Your task to perform on an android device: turn on javascript in the chrome app Image 0: 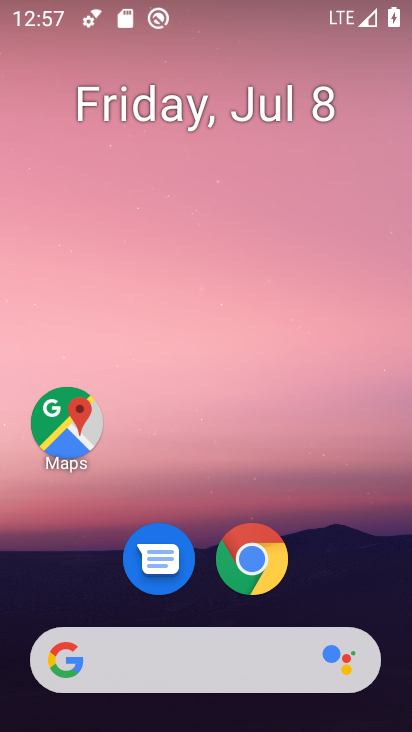
Step 0: drag from (204, 601) to (207, 122)
Your task to perform on an android device: turn on javascript in the chrome app Image 1: 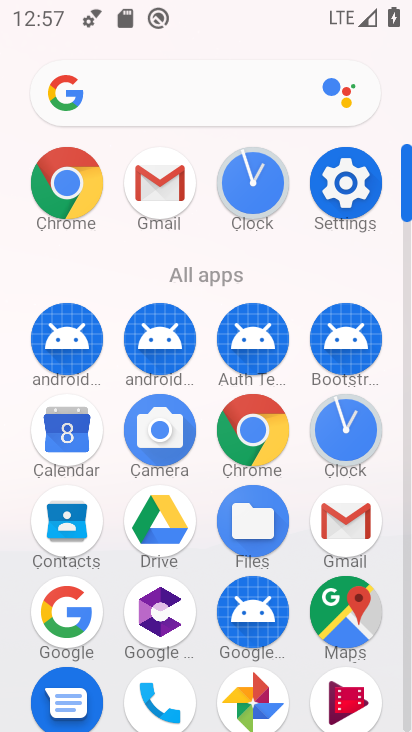
Step 1: click (70, 203)
Your task to perform on an android device: turn on javascript in the chrome app Image 2: 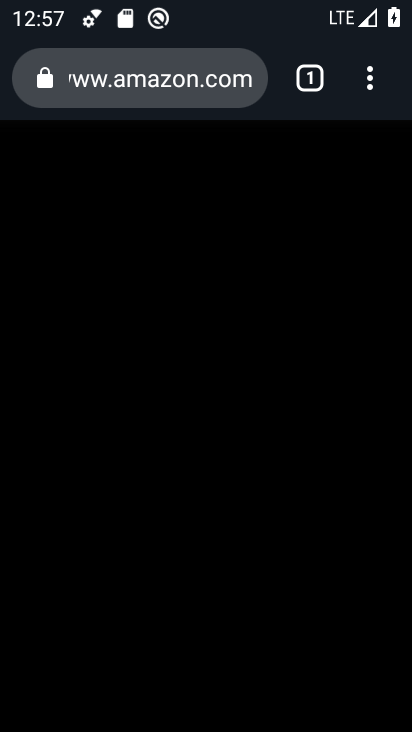
Step 2: drag from (371, 93) to (102, 613)
Your task to perform on an android device: turn on javascript in the chrome app Image 3: 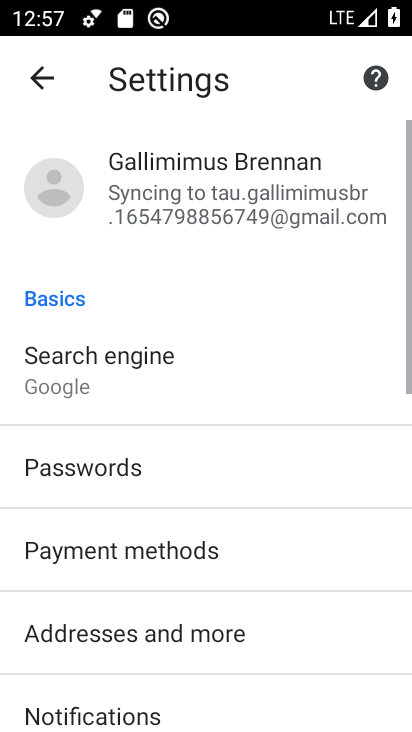
Step 3: drag from (110, 616) to (70, 31)
Your task to perform on an android device: turn on javascript in the chrome app Image 4: 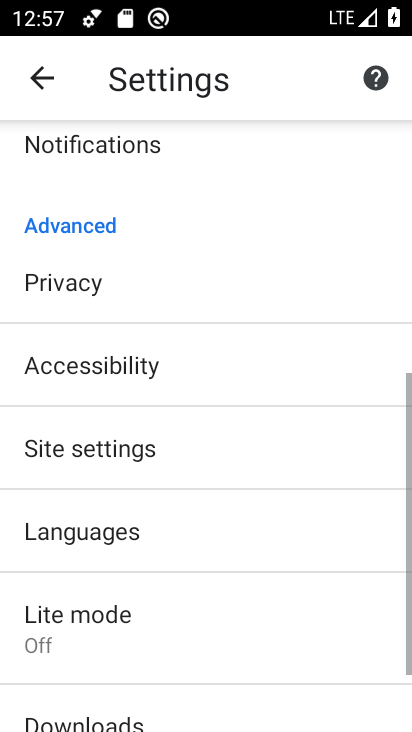
Step 4: click (86, 441)
Your task to perform on an android device: turn on javascript in the chrome app Image 5: 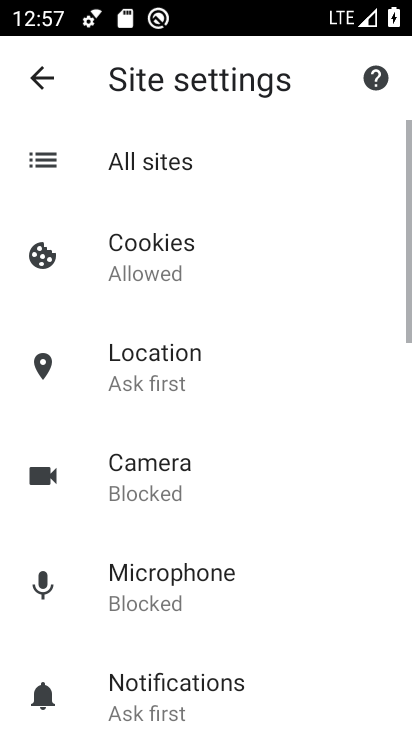
Step 5: drag from (145, 587) to (149, 89)
Your task to perform on an android device: turn on javascript in the chrome app Image 6: 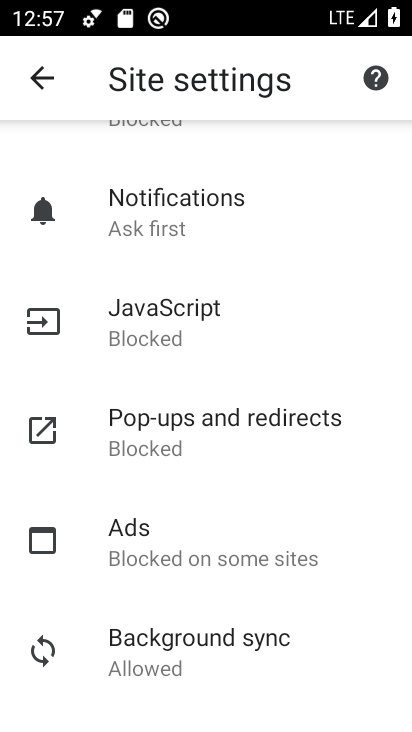
Step 6: click (164, 329)
Your task to perform on an android device: turn on javascript in the chrome app Image 7: 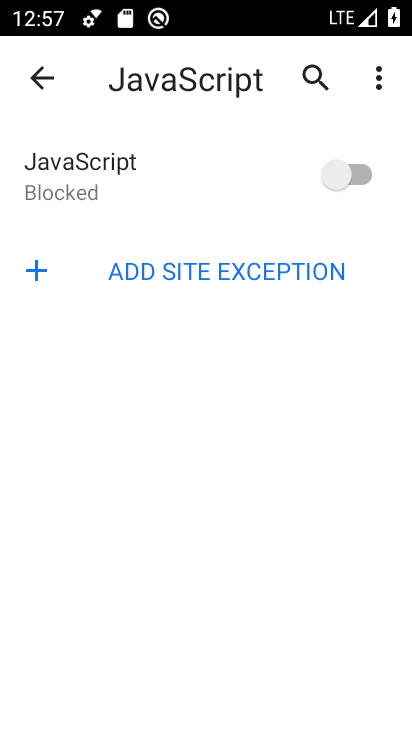
Step 7: click (354, 169)
Your task to perform on an android device: turn on javascript in the chrome app Image 8: 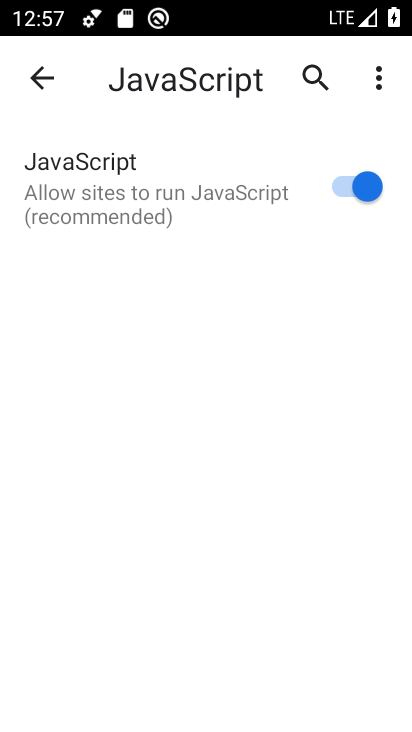
Step 8: task complete